Your task to perform on an android device: open app "Venmo" Image 0: 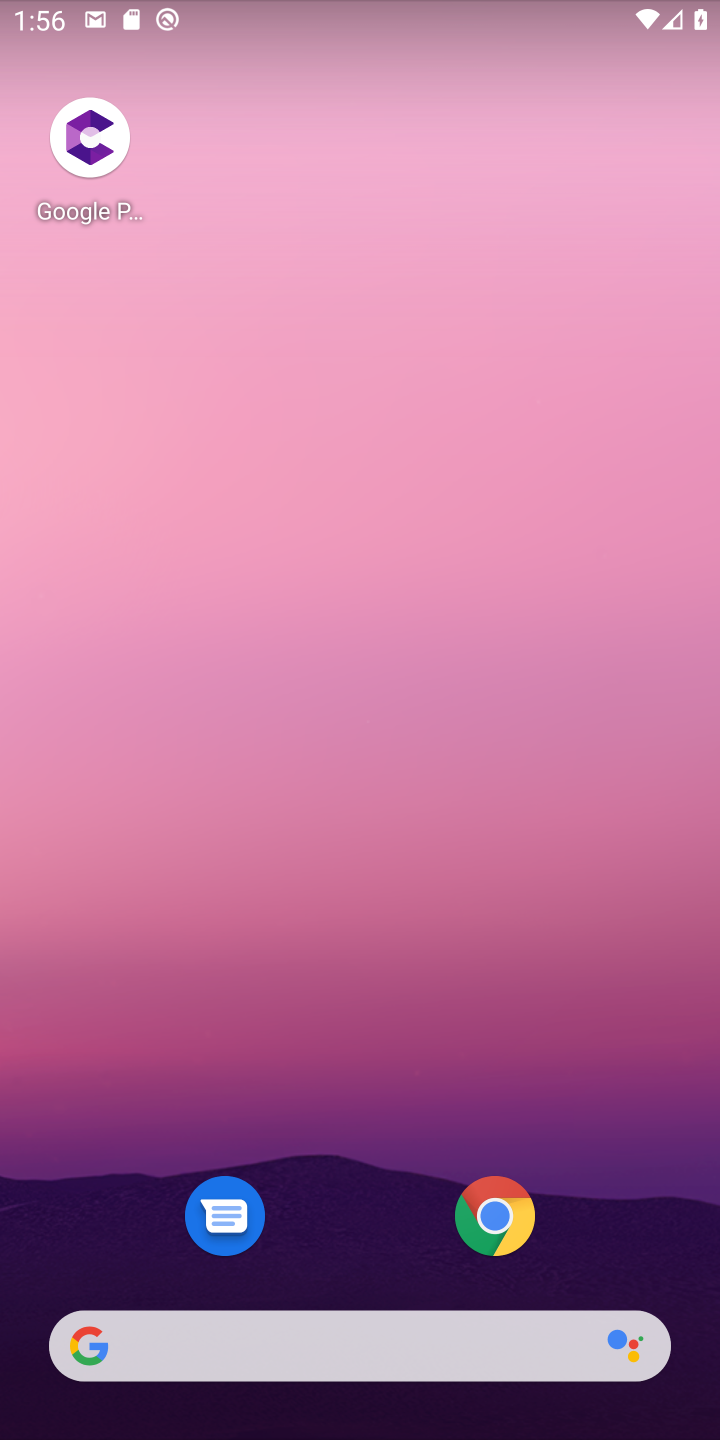
Step 0: drag from (409, 1228) to (407, 99)
Your task to perform on an android device: open app "Venmo" Image 1: 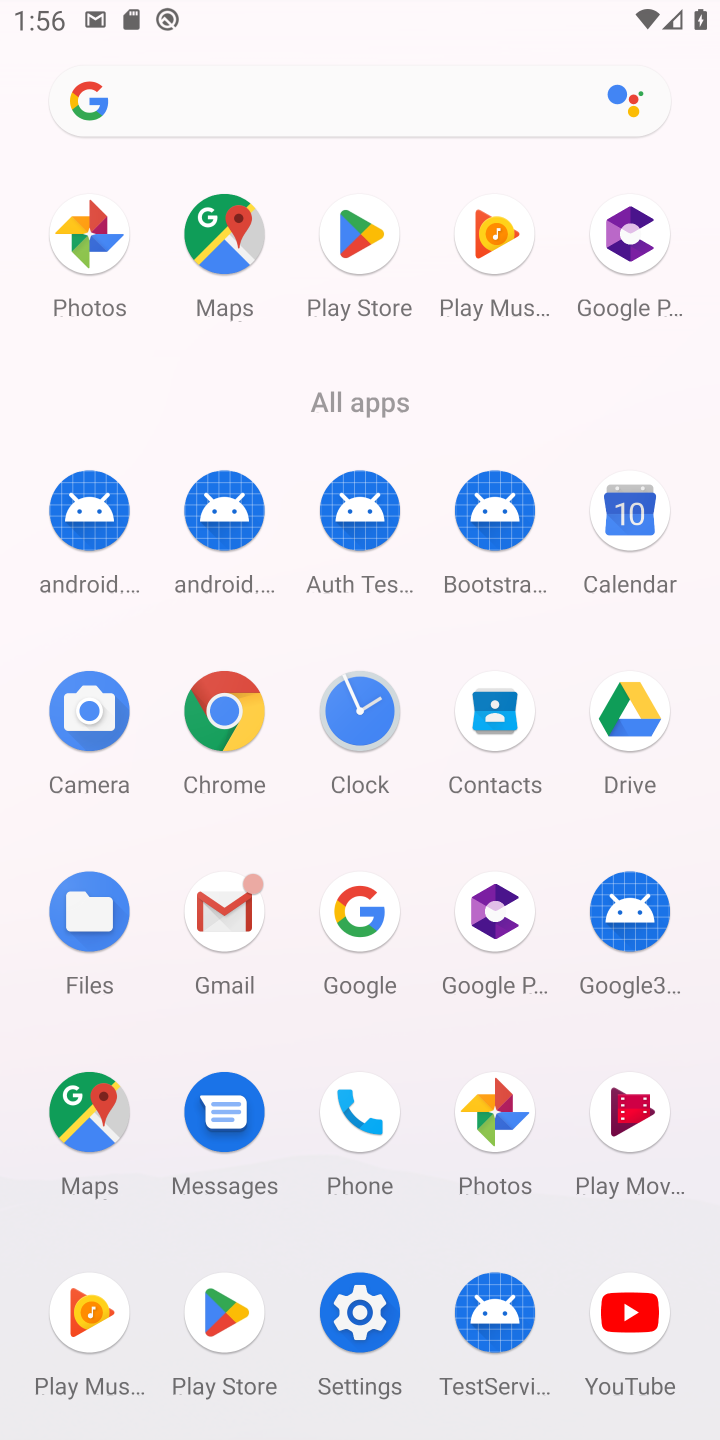
Step 1: click (371, 244)
Your task to perform on an android device: open app "Venmo" Image 2: 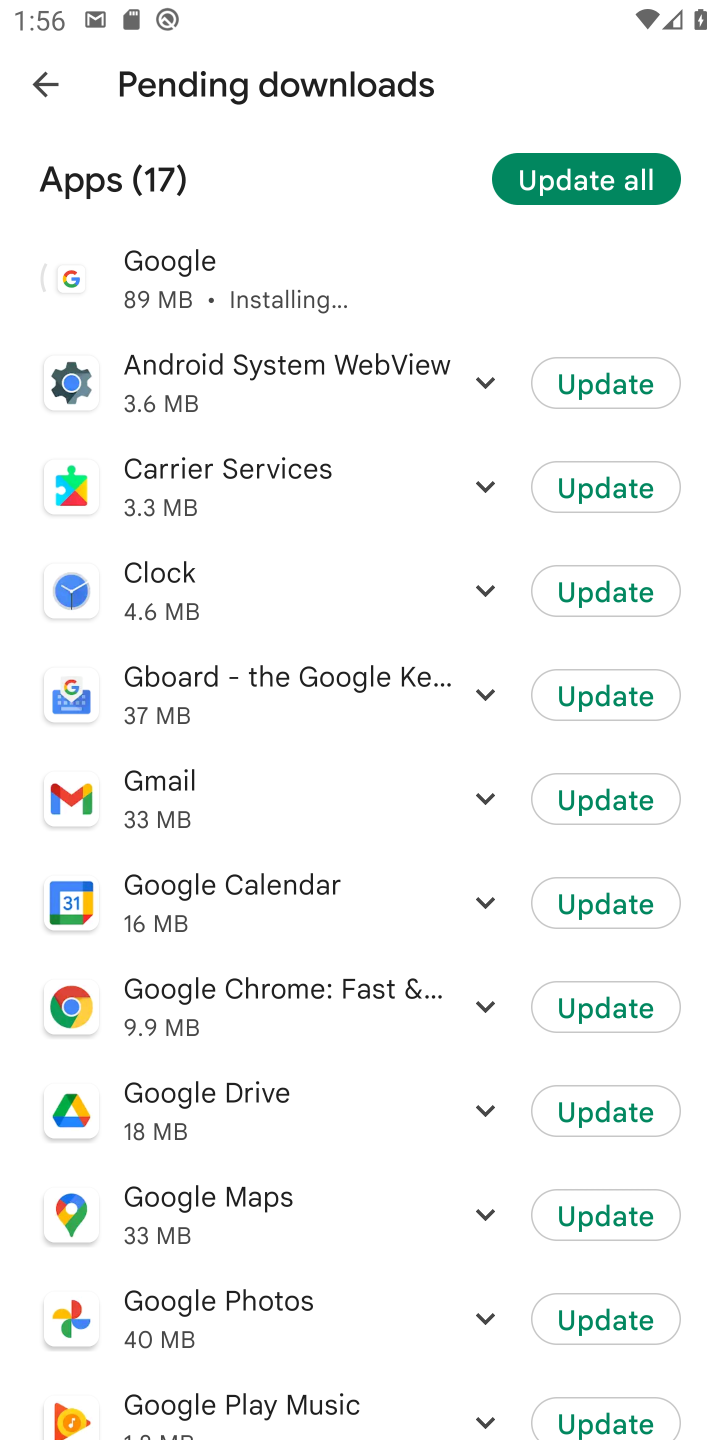
Step 2: click (27, 69)
Your task to perform on an android device: open app "Venmo" Image 3: 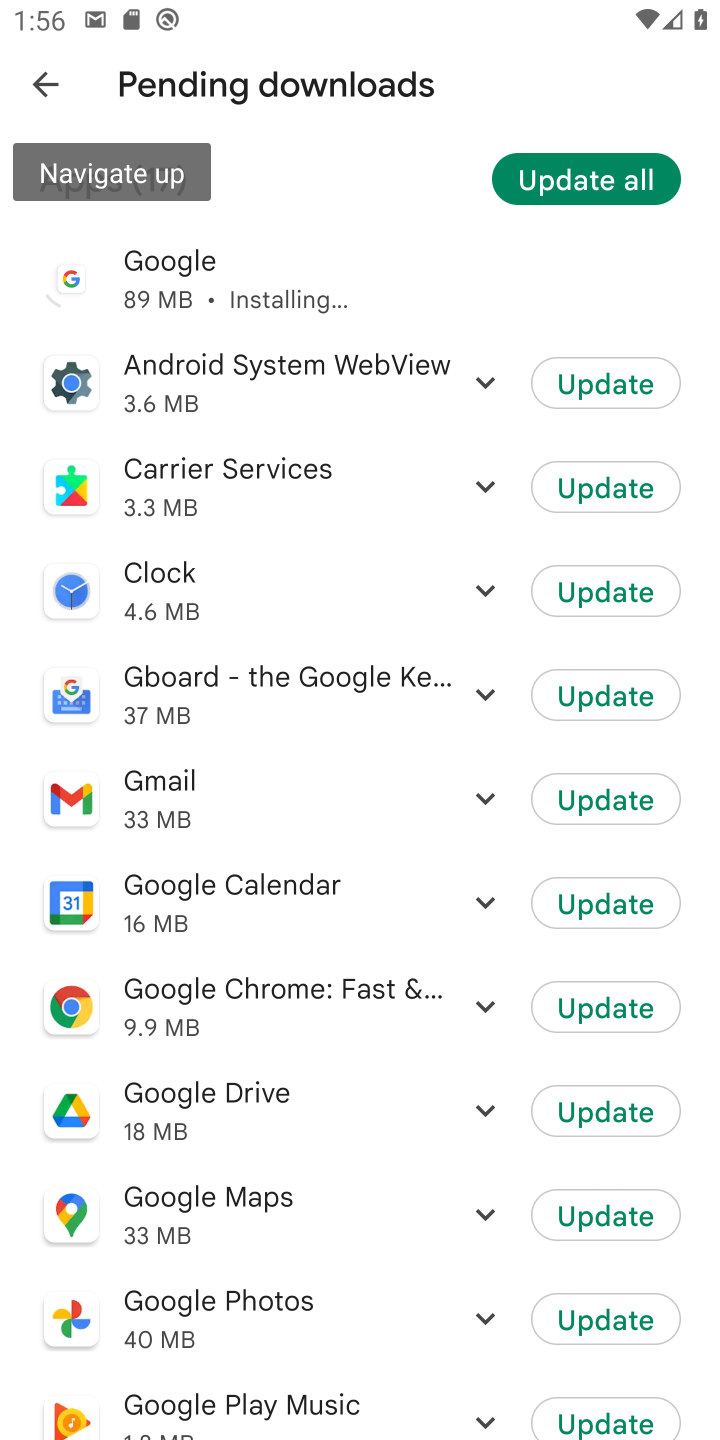
Step 3: click (29, 69)
Your task to perform on an android device: open app "Venmo" Image 4: 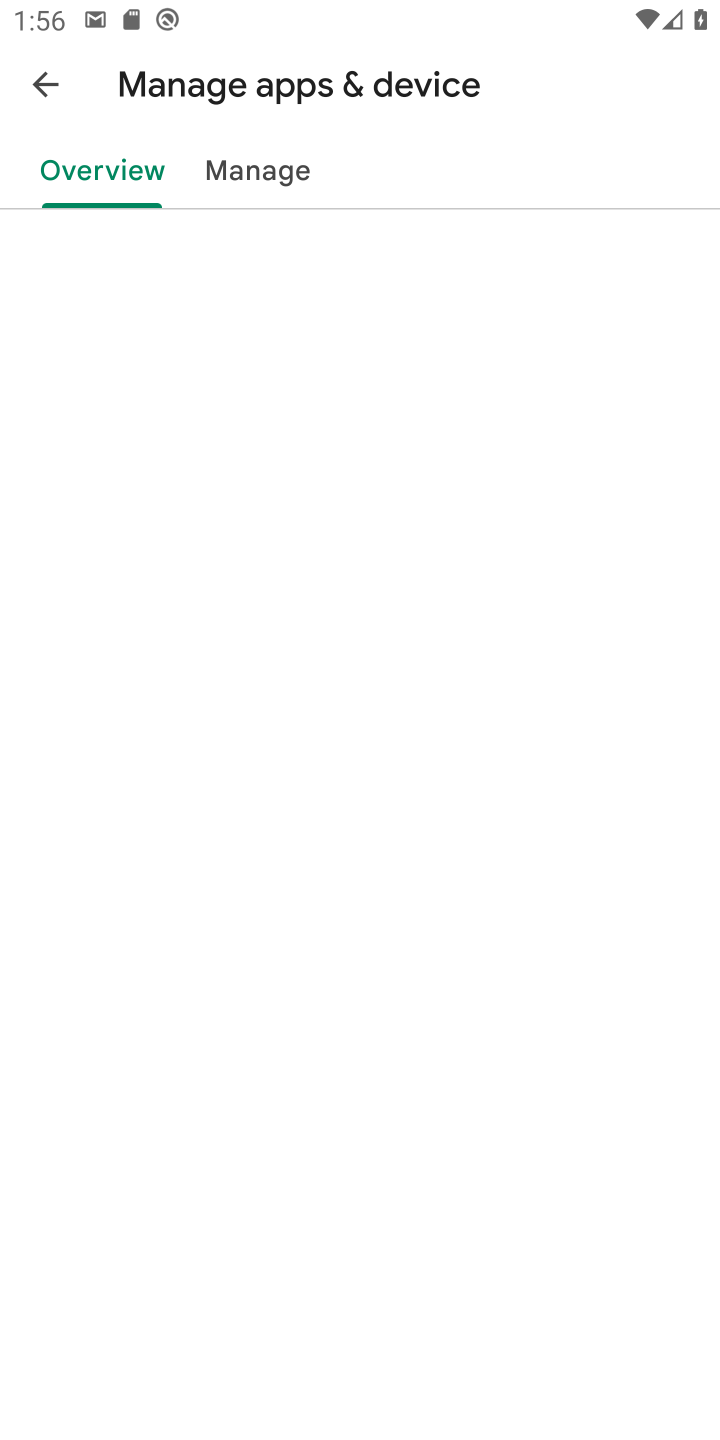
Step 4: click (30, 69)
Your task to perform on an android device: open app "Venmo" Image 5: 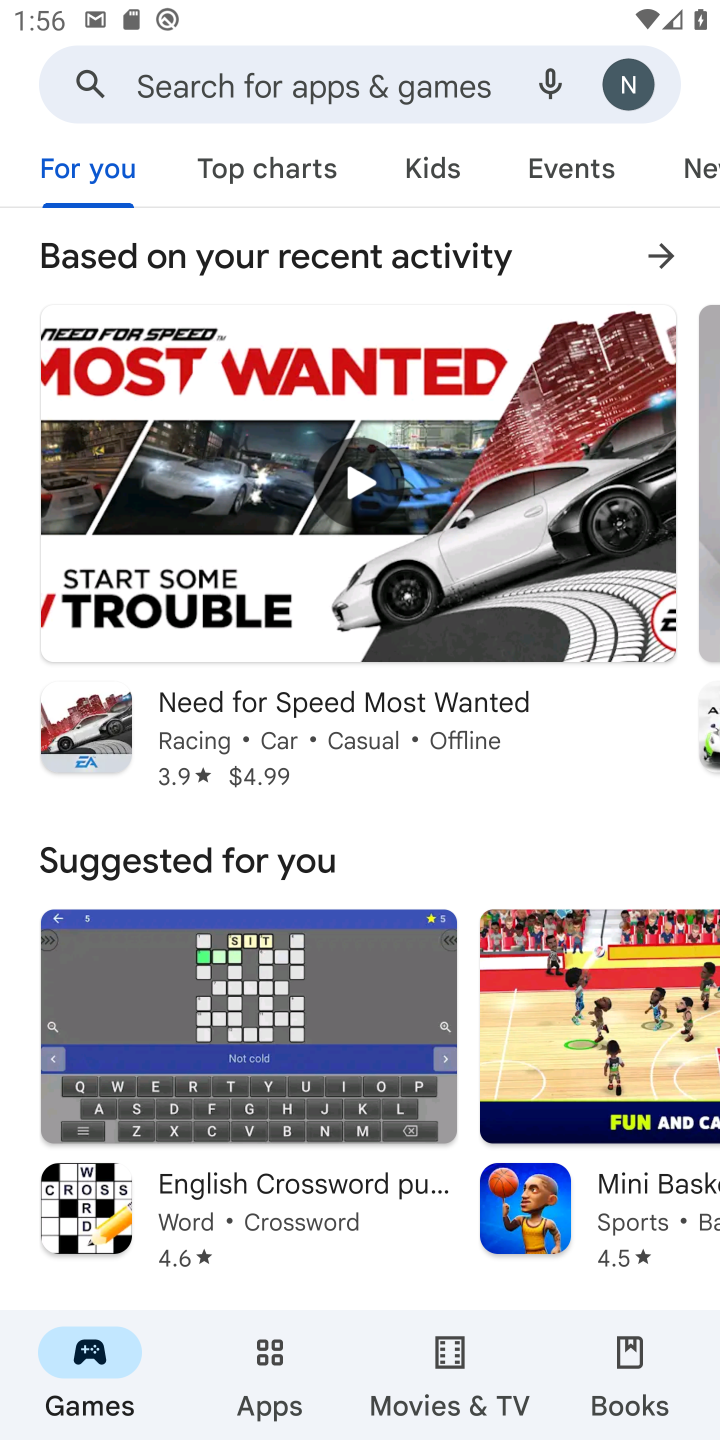
Step 5: click (266, 76)
Your task to perform on an android device: open app "Venmo" Image 6: 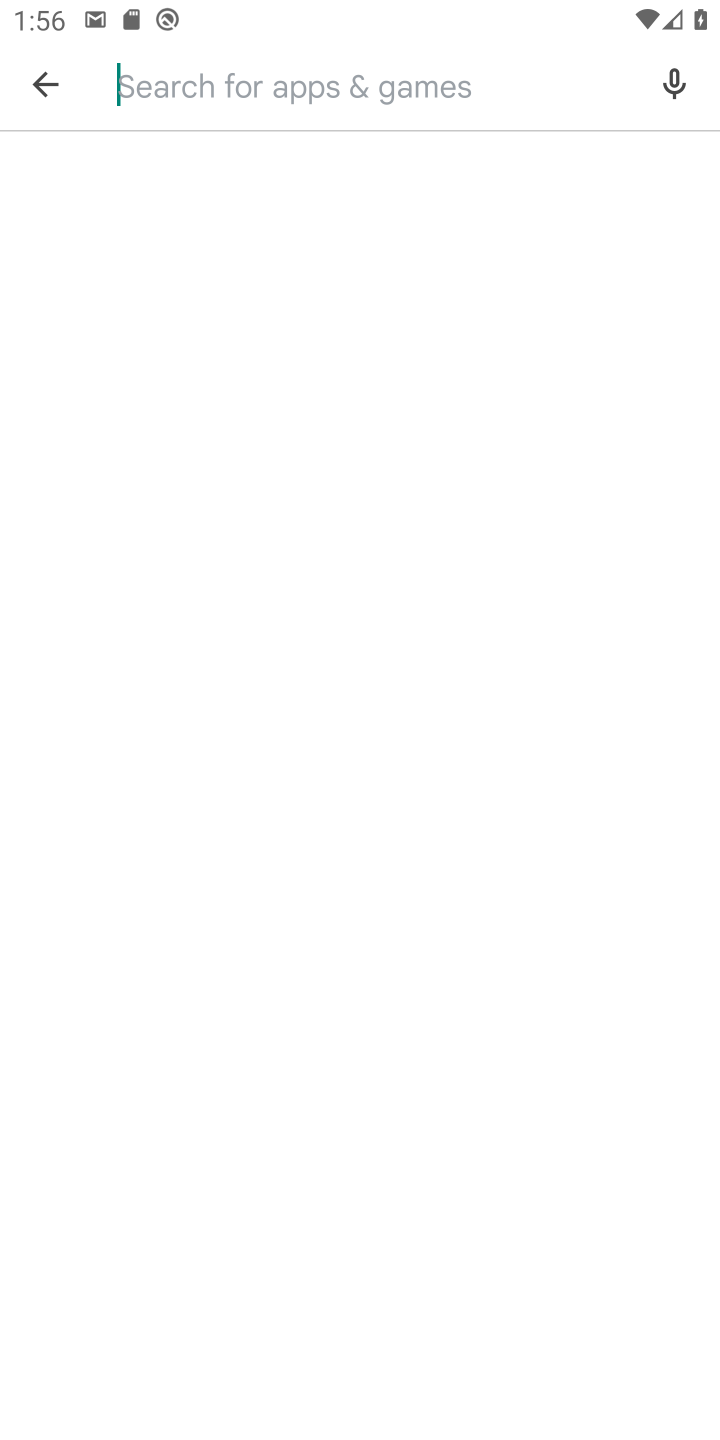
Step 6: type "Venmo"
Your task to perform on an android device: open app "Venmo" Image 7: 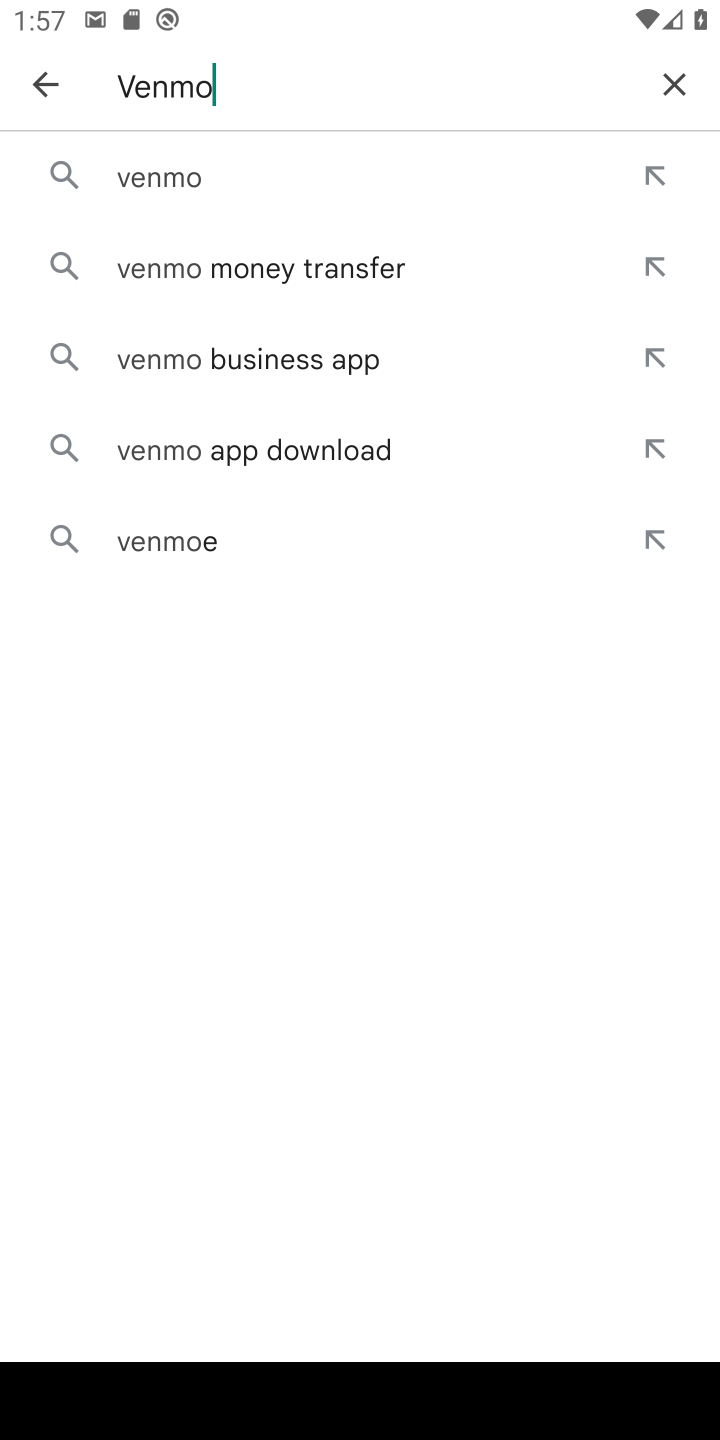
Step 7: click (173, 150)
Your task to perform on an android device: open app "Venmo" Image 8: 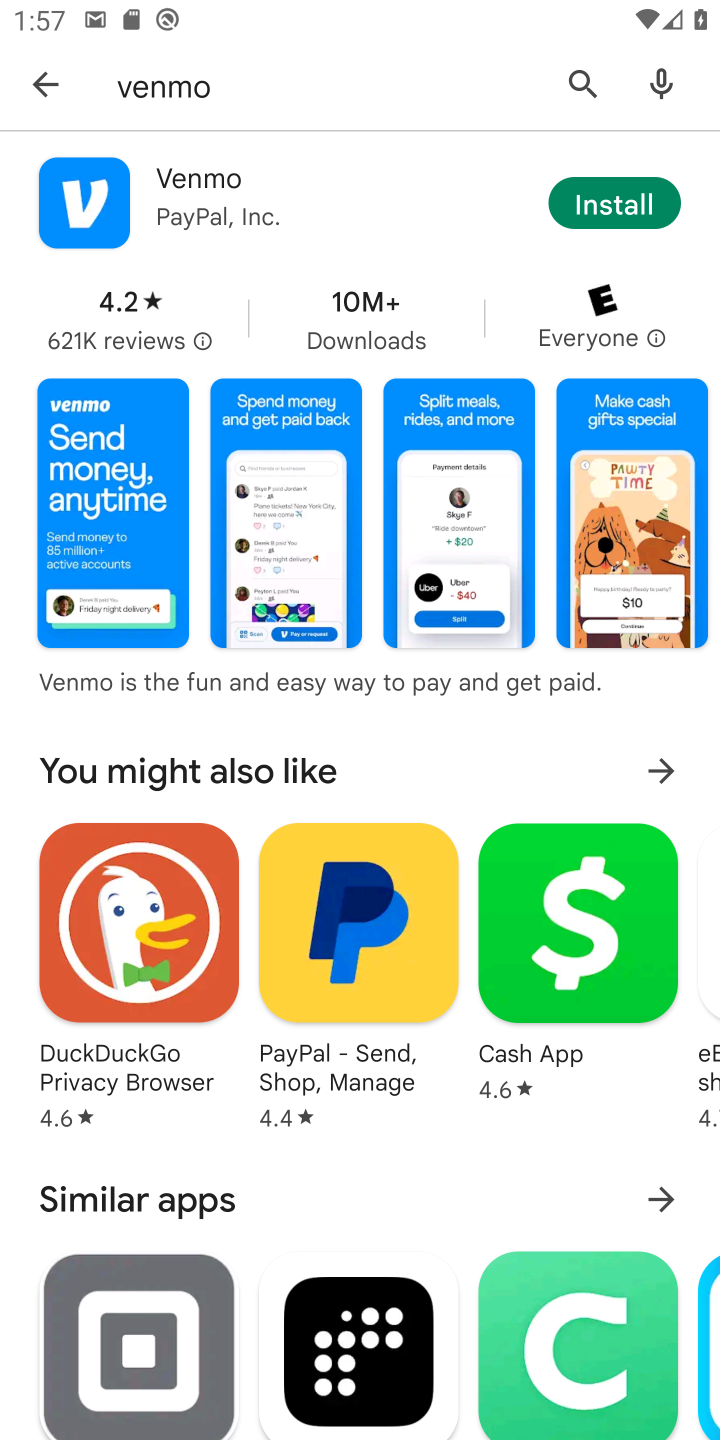
Step 8: click (228, 174)
Your task to perform on an android device: open app "Venmo" Image 9: 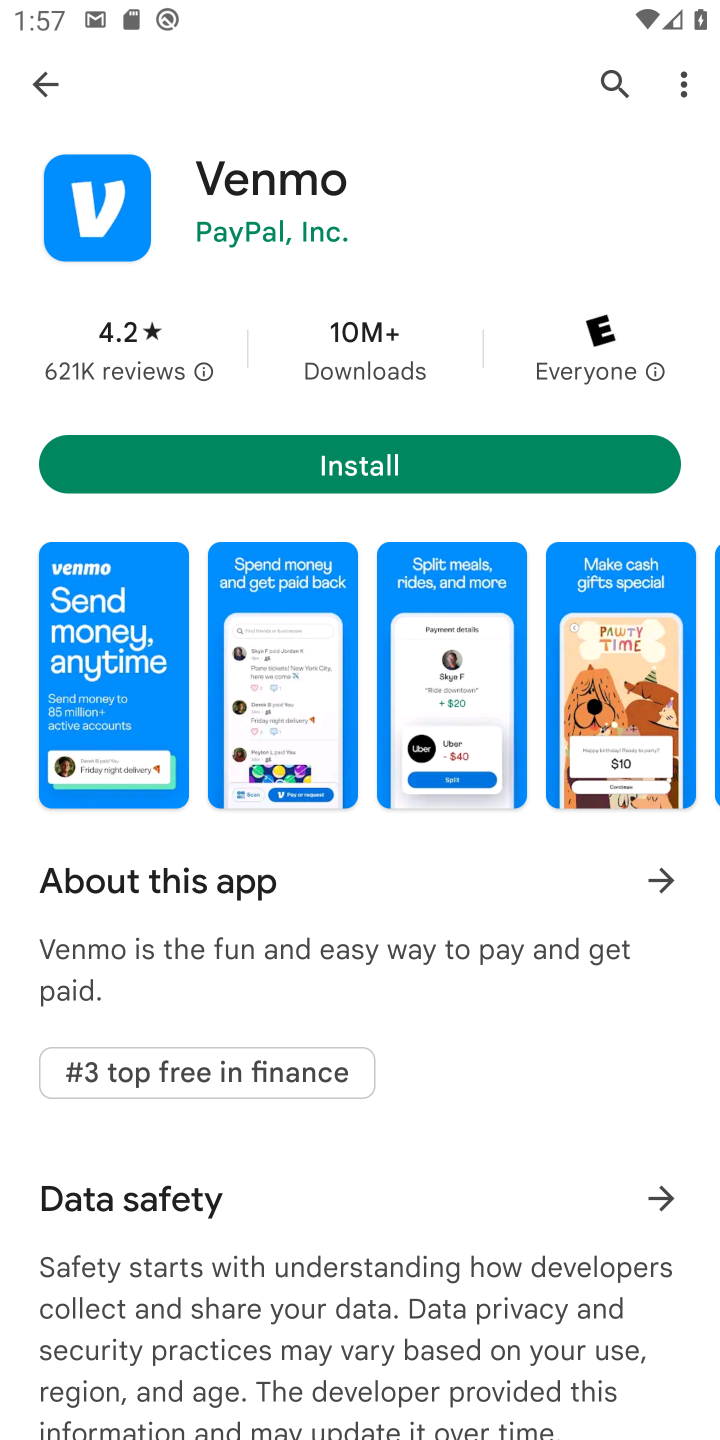
Step 9: task complete